Your task to perform on an android device: check battery use Image 0: 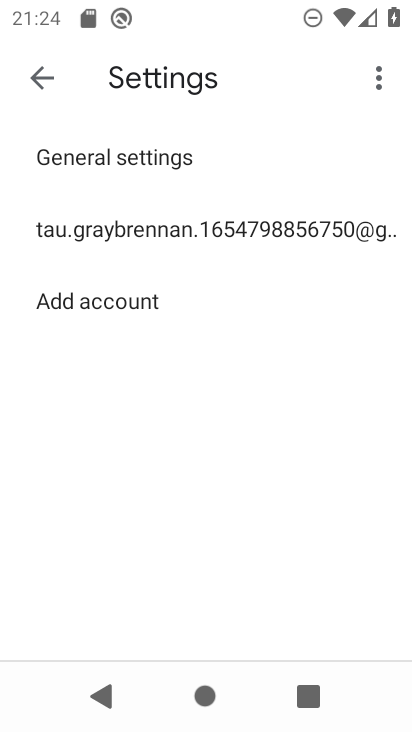
Step 0: press home button
Your task to perform on an android device: check battery use Image 1: 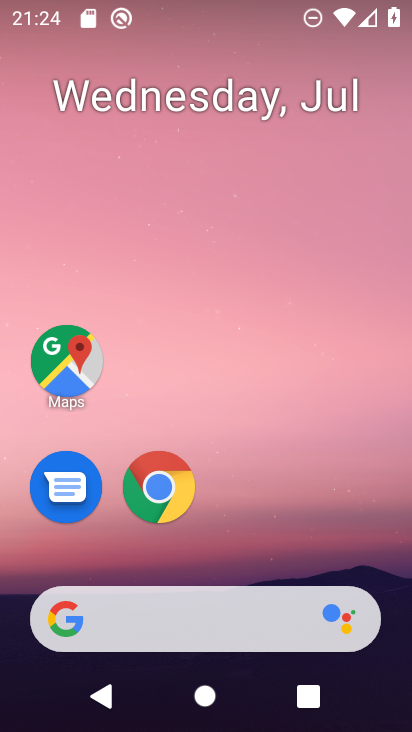
Step 1: drag from (349, 539) to (362, 96)
Your task to perform on an android device: check battery use Image 2: 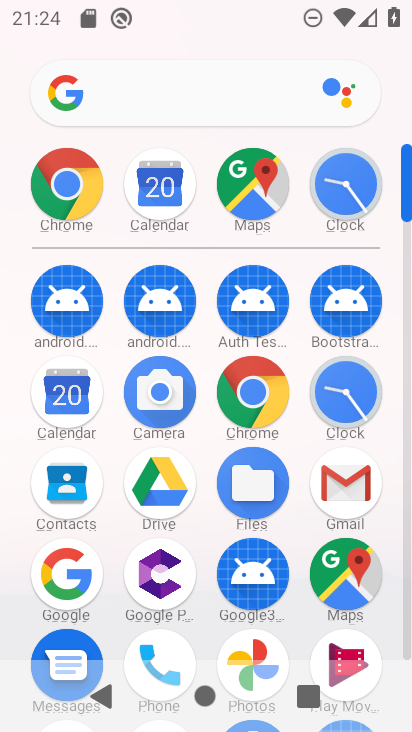
Step 2: drag from (396, 445) to (395, 177)
Your task to perform on an android device: check battery use Image 3: 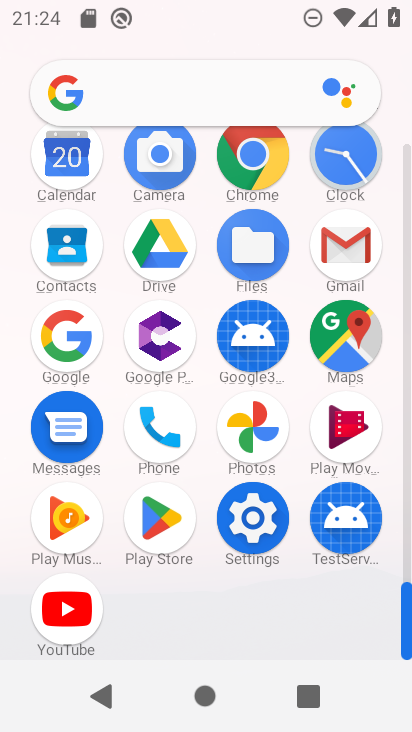
Step 3: click (251, 510)
Your task to perform on an android device: check battery use Image 4: 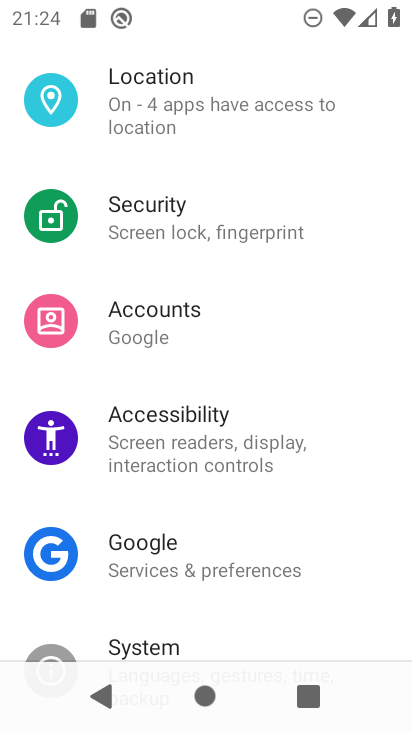
Step 4: drag from (358, 288) to (349, 363)
Your task to perform on an android device: check battery use Image 5: 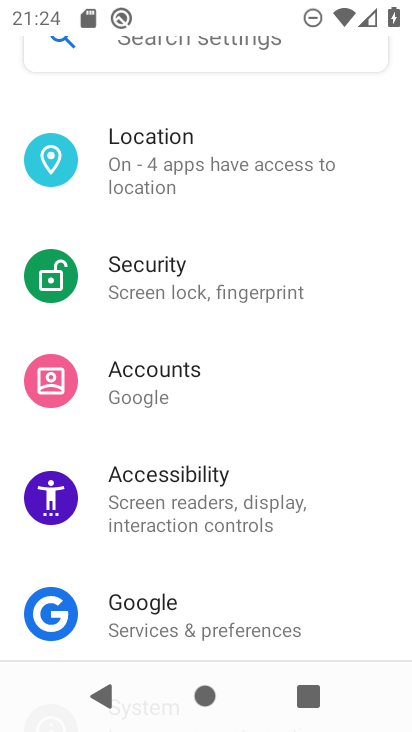
Step 5: drag from (352, 295) to (337, 392)
Your task to perform on an android device: check battery use Image 6: 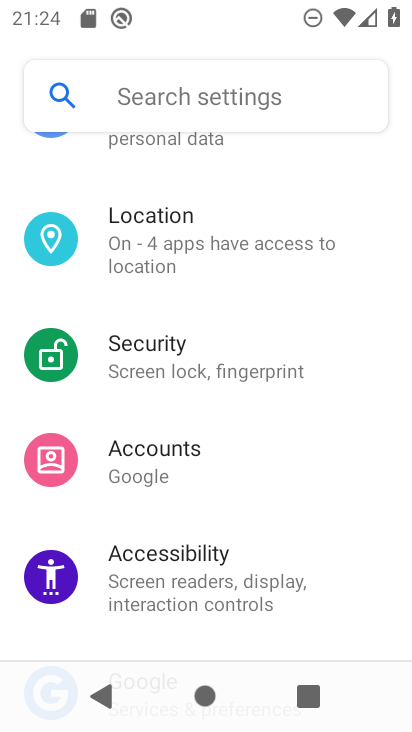
Step 6: drag from (343, 317) to (338, 404)
Your task to perform on an android device: check battery use Image 7: 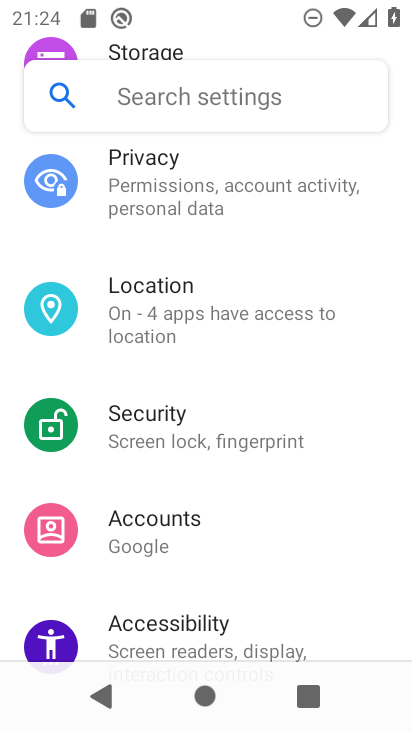
Step 7: drag from (356, 301) to (352, 403)
Your task to perform on an android device: check battery use Image 8: 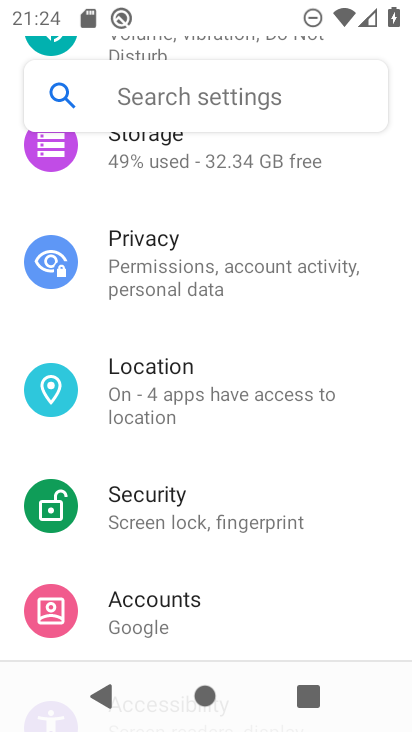
Step 8: drag from (359, 320) to (349, 414)
Your task to perform on an android device: check battery use Image 9: 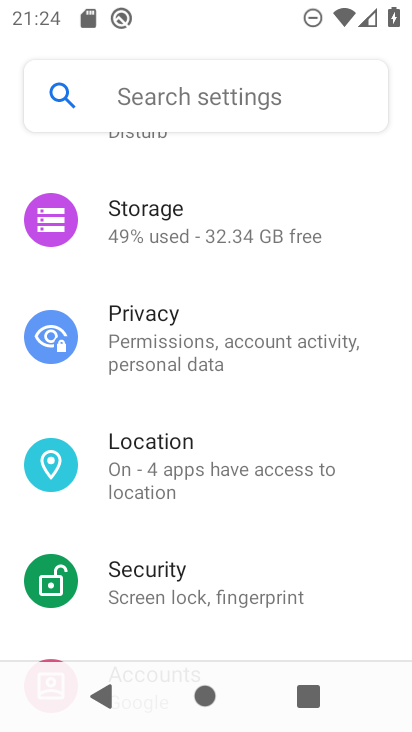
Step 9: drag from (369, 295) to (367, 401)
Your task to perform on an android device: check battery use Image 10: 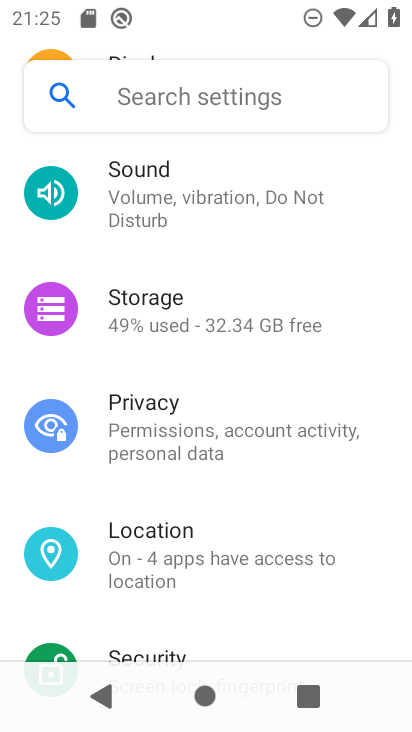
Step 10: drag from (361, 293) to (364, 400)
Your task to perform on an android device: check battery use Image 11: 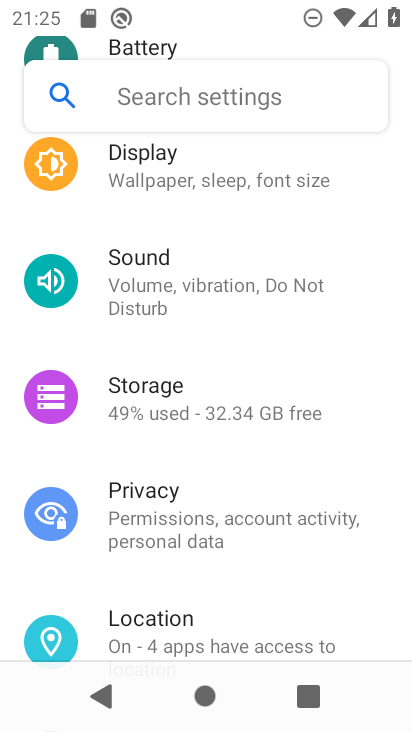
Step 11: drag from (360, 241) to (361, 372)
Your task to perform on an android device: check battery use Image 12: 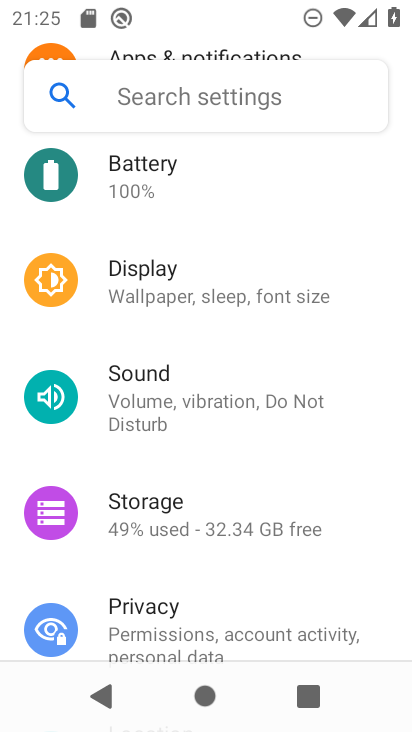
Step 12: drag from (364, 216) to (366, 408)
Your task to perform on an android device: check battery use Image 13: 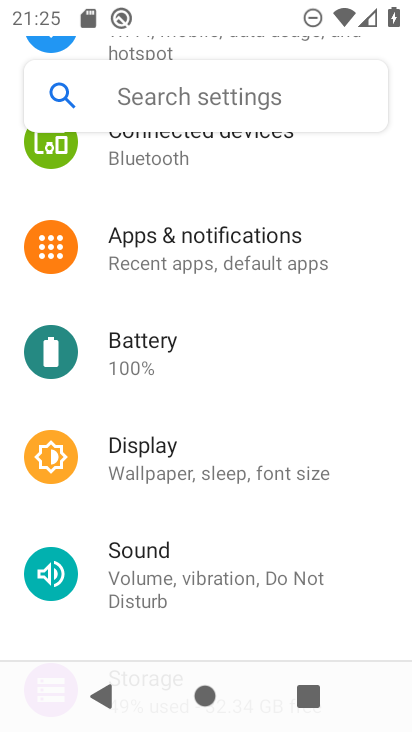
Step 13: click (233, 366)
Your task to perform on an android device: check battery use Image 14: 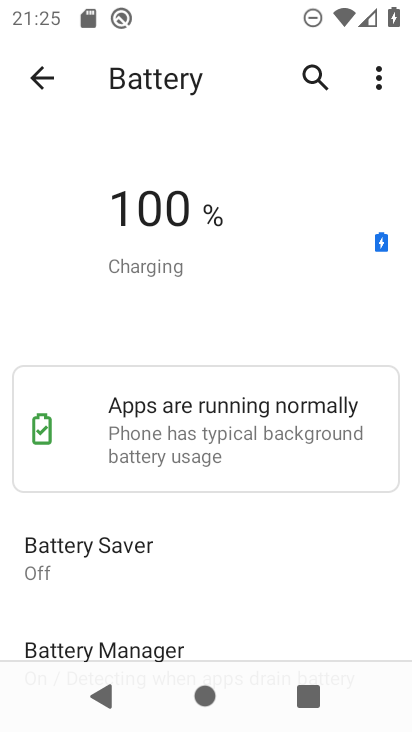
Step 14: click (377, 86)
Your task to perform on an android device: check battery use Image 15: 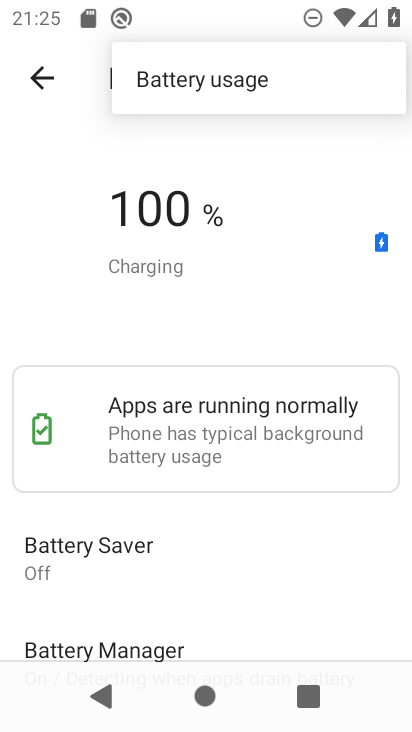
Step 15: click (302, 89)
Your task to perform on an android device: check battery use Image 16: 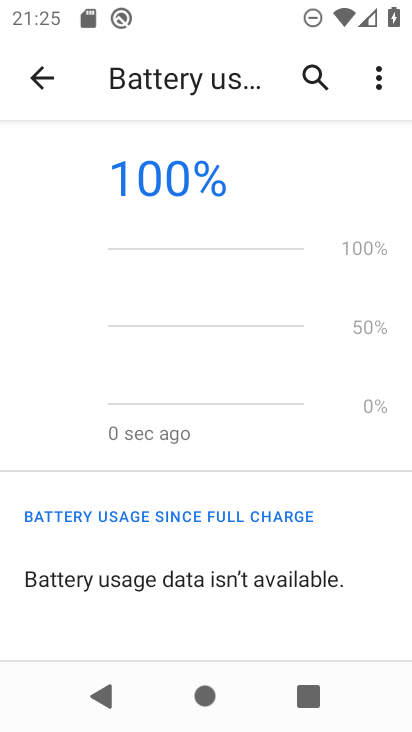
Step 16: task complete